Your task to perform on an android device: turn on priority inbox in the gmail app Image 0: 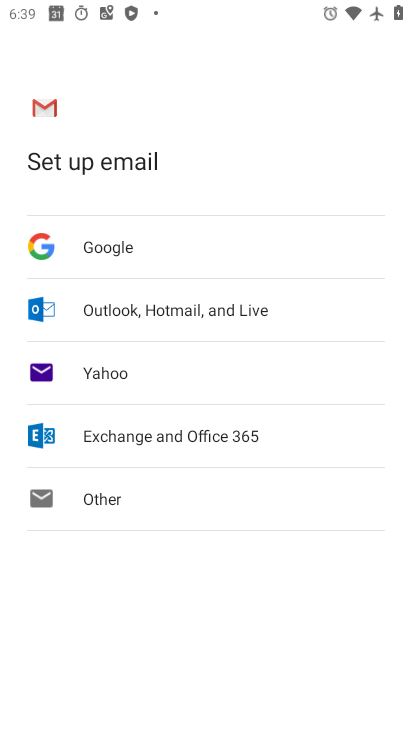
Step 0: press home button
Your task to perform on an android device: turn on priority inbox in the gmail app Image 1: 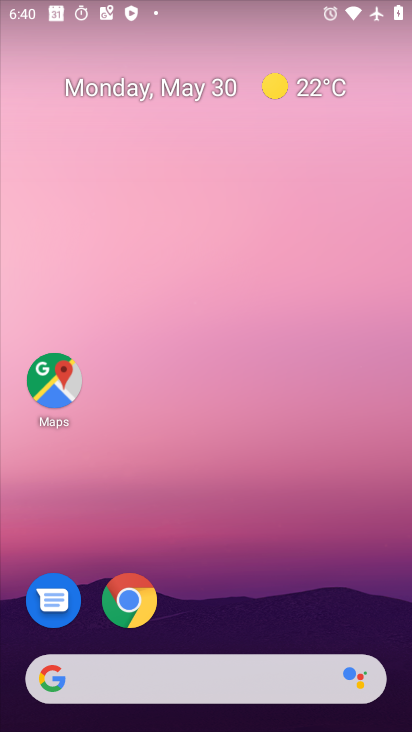
Step 1: drag from (247, 620) to (269, 72)
Your task to perform on an android device: turn on priority inbox in the gmail app Image 2: 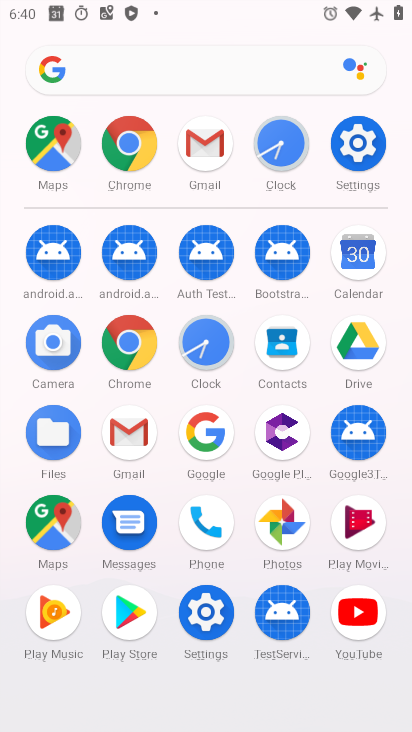
Step 2: click (206, 153)
Your task to perform on an android device: turn on priority inbox in the gmail app Image 3: 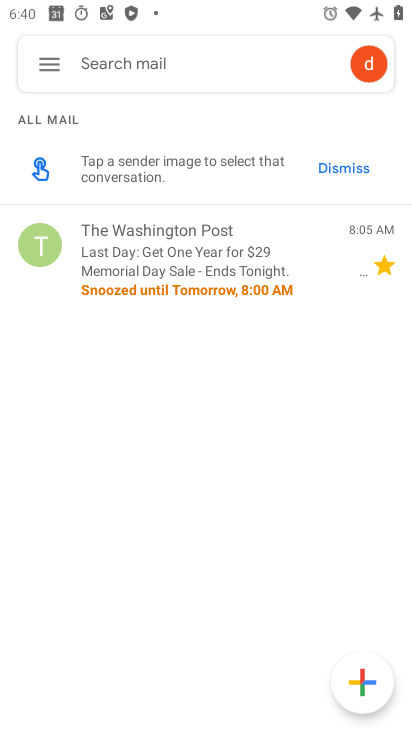
Step 3: click (44, 61)
Your task to perform on an android device: turn on priority inbox in the gmail app Image 4: 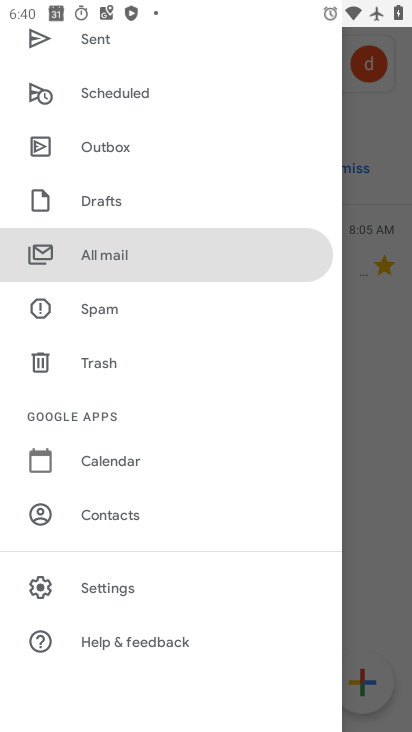
Step 4: click (122, 590)
Your task to perform on an android device: turn on priority inbox in the gmail app Image 5: 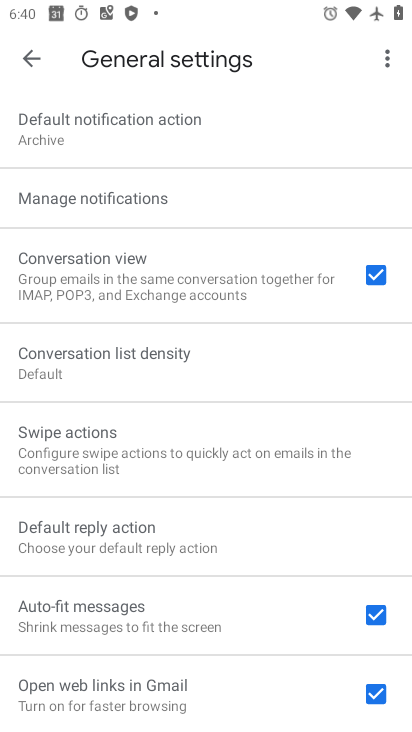
Step 5: click (30, 58)
Your task to perform on an android device: turn on priority inbox in the gmail app Image 6: 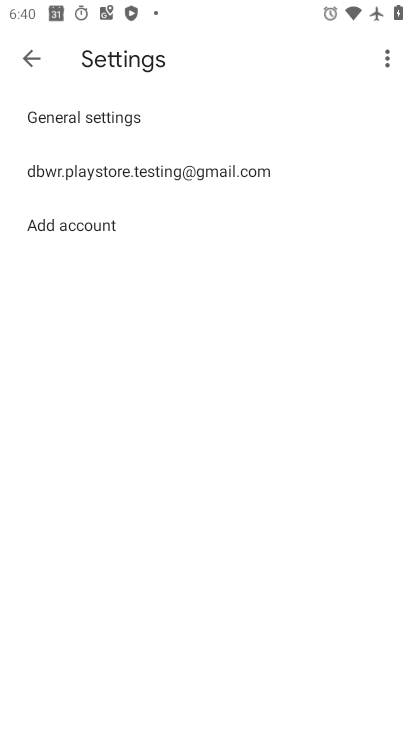
Step 6: click (116, 181)
Your task to perform on an android device: turn on priority inbox in the gmail app Image 7: 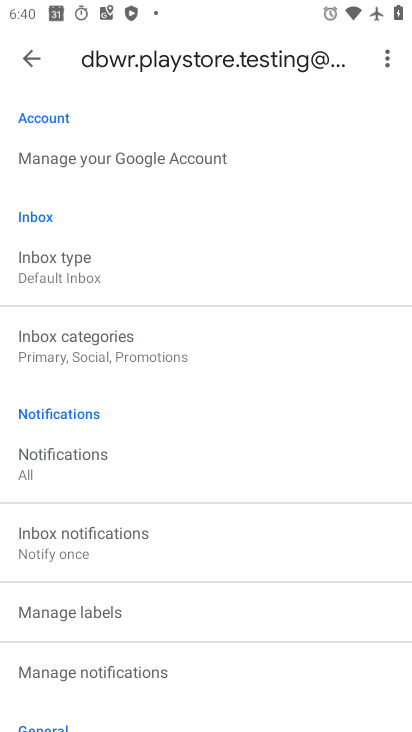
Step 7: click (79, 267)
Your task to perform on an android device: turn on priority inbox in the gmail app Image 8: 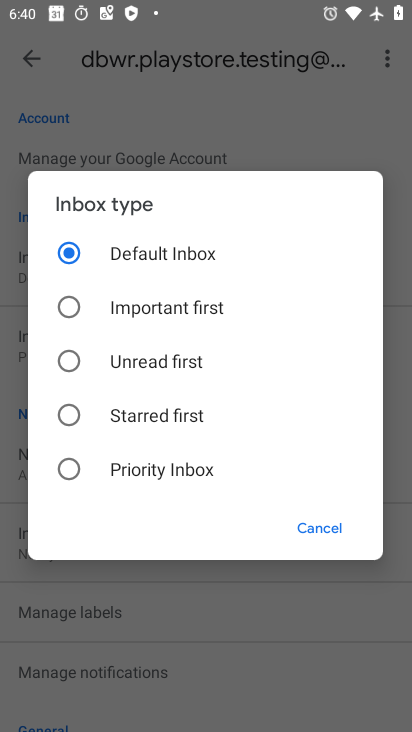
Step 8: click (67, 468)
Your task to perform on an android device: turn on priority inbox in the gmail app Image 9: 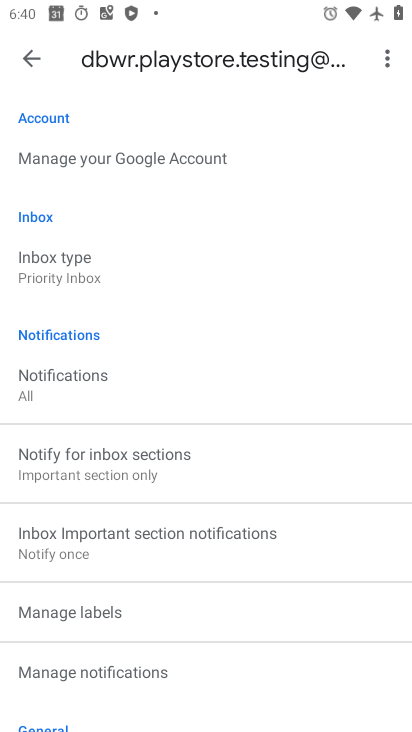
Step 9: task complete